Your task to perform on an android device: Open Youtube and go to "Your channel" Image 0: 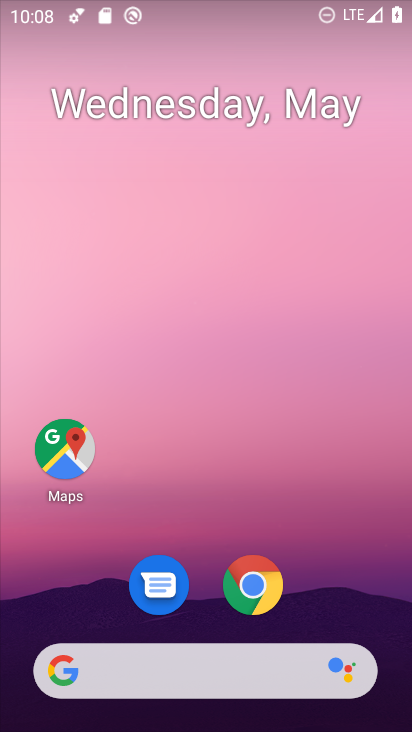
Step 0: drag from (306, 471) to (265, 12)
Your task to perform on an android device: Open Youtube and go to "Your channel" Image 1: 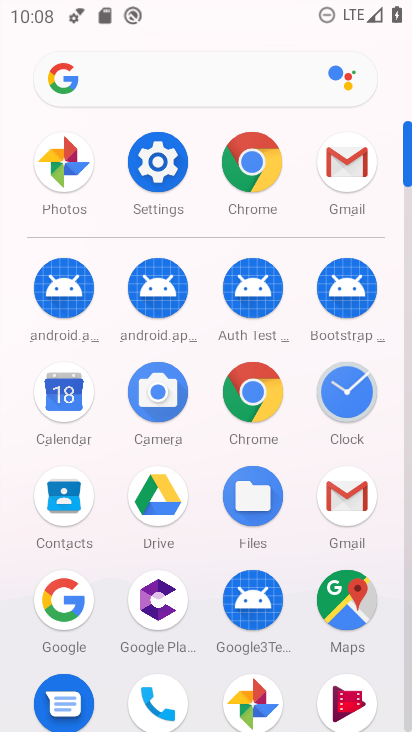
Step 1: drag from (309, 505) to (295, 214)
Your task to perform on an android device: Open Youtube and go to "Your channel" Image 2: 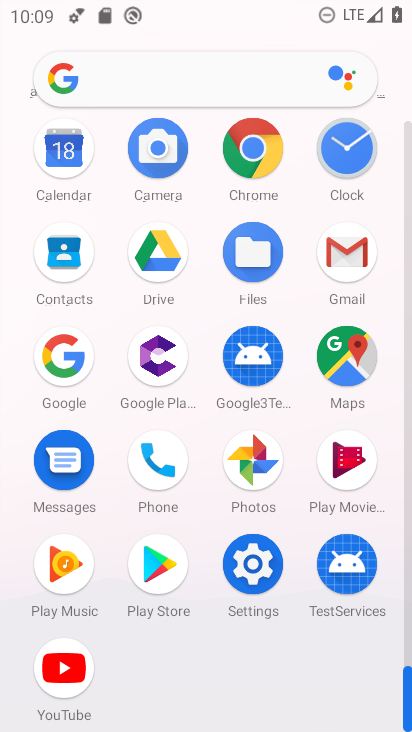
Step 2: click (78, 661)
Your task to perform on an android device: Open Youtube and go to "Your channel" Image 3: 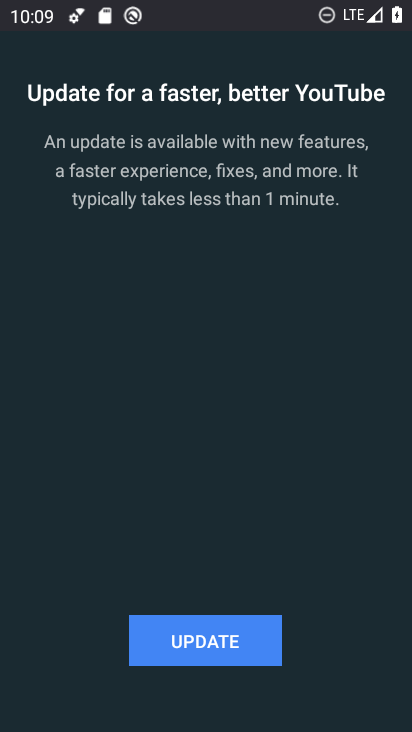
Step 3: click (177, 638)
Your task to perform on an android device: Open Youtube and go to "Your channel" Image 4: 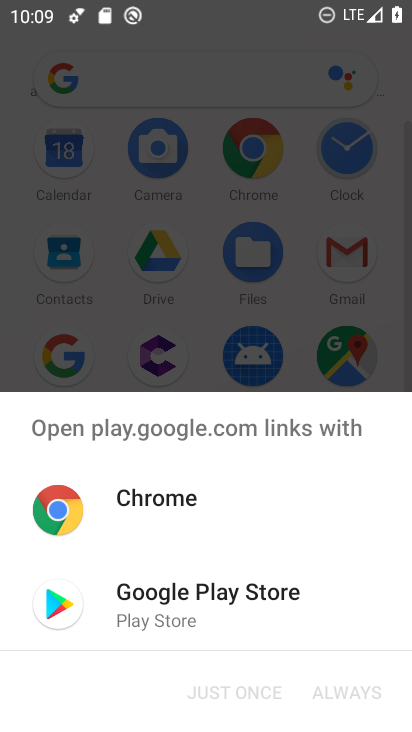
Step 4: click (181, 602)
Your task to perform on an android device: Open Youtube and go to "Your channel" Image 5: 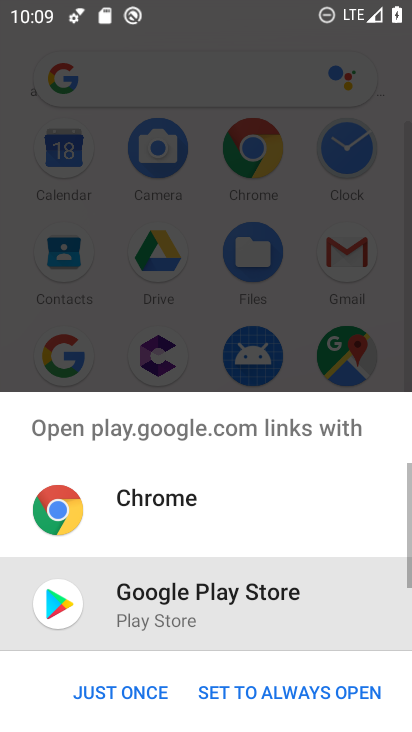
Step 5: click (150, 693)
Your task to perform on an android device: Open Youtube and go to "Your channel" Image 6: 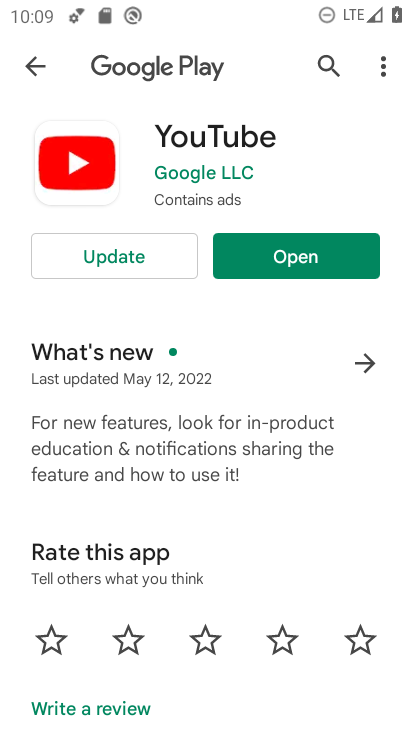
Step 6: click (154, 245)
Your task to perform on an android device: Open Youtube and go to "Your channel" Image 7: 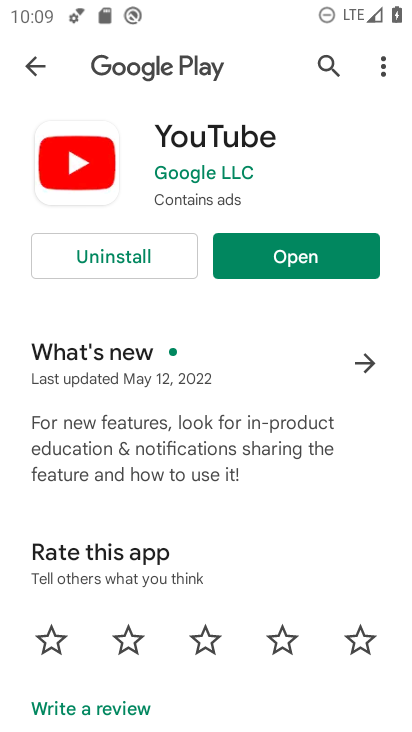
Step 7: click (279, 259)
Your task to perform on an android device: Open Youtube and go to "Your channel" Image 8: 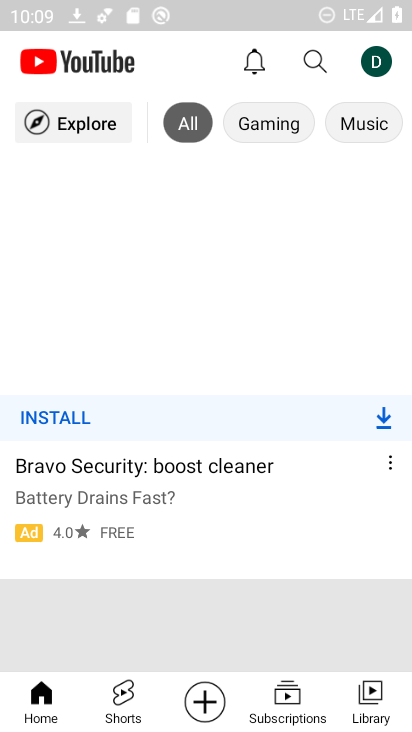
Step 8: click (383, 59)
Your task to perform on an android device: Open Youtube and go to "Your channel" Image 9: 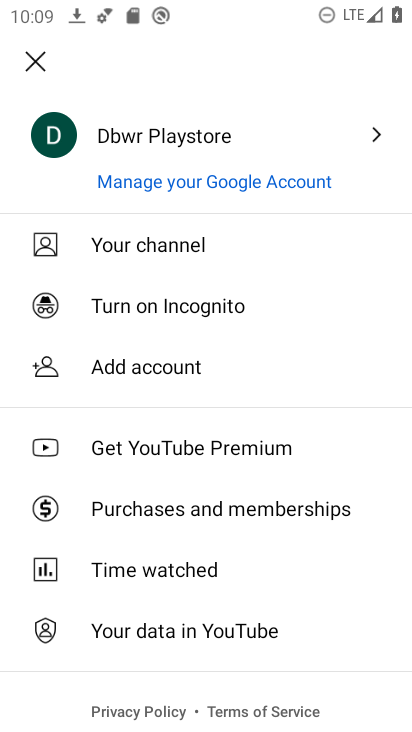
Step 9: click (102, 236)
Your task to perform on an android device: Open Youtube and go to "Your channel" Image 10: 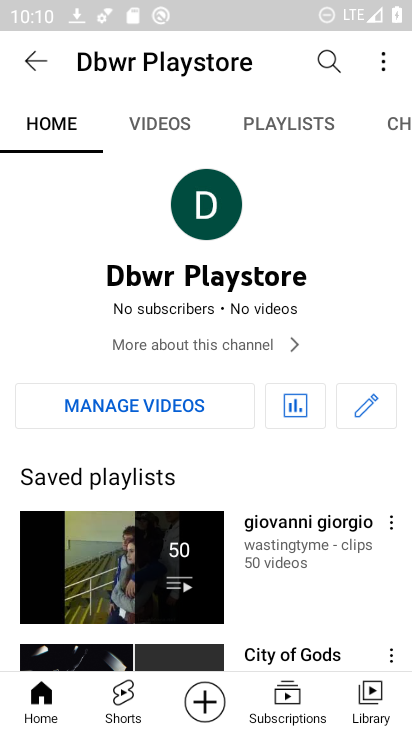
Step 10: task complete